Your task to perform on an android device: Show me recent news Image 0: 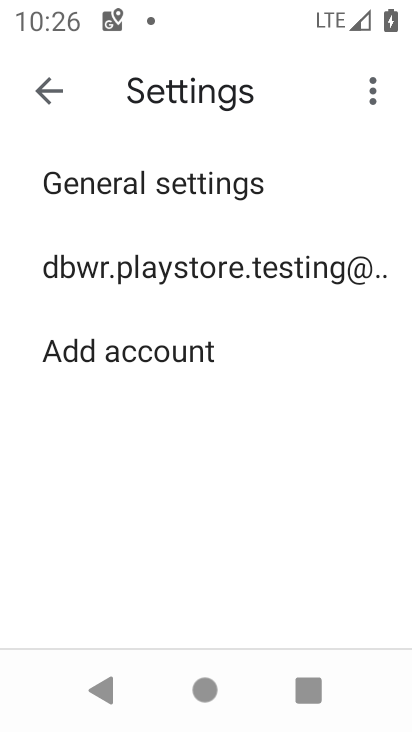
Step 0: press home button
Your task to perform on an android device: Show me recent news Image 1: 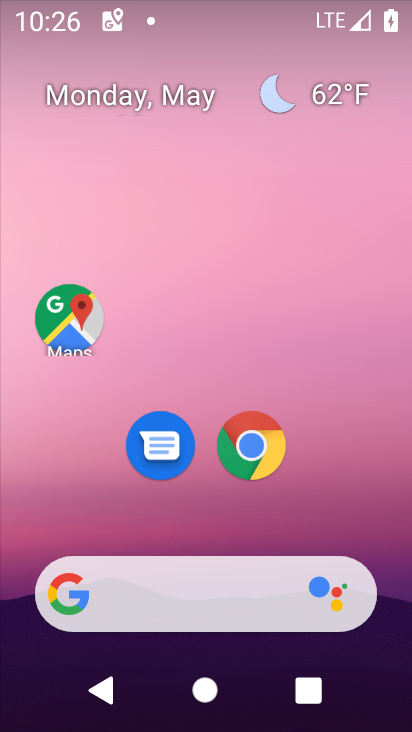
Step 1: drag from (385, 642) to (246, 32)
Your task to perform on an android device: Show me recent news Image 2: 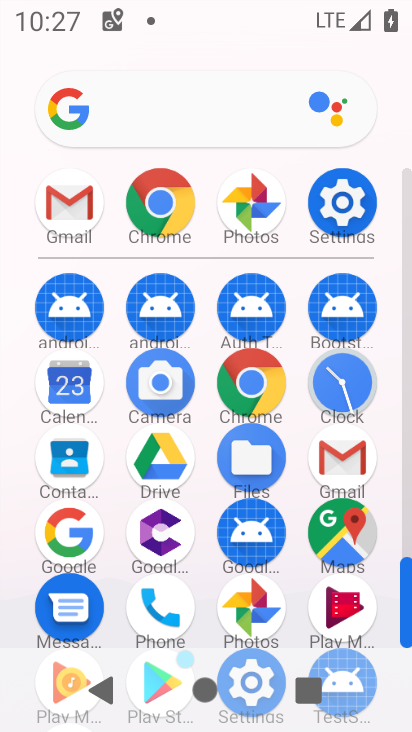
Step 2: click (94, 531)
Your task to perform on an android device: Show me recent news Image 3: 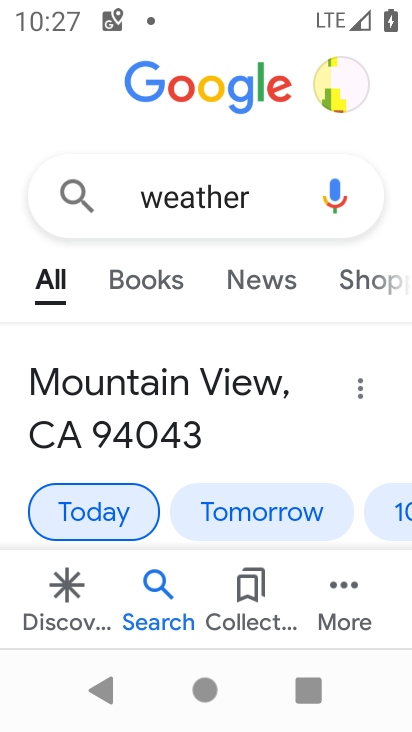
Step 3: press back button
Your task to perform on an android device: Show me recent news Image 4: 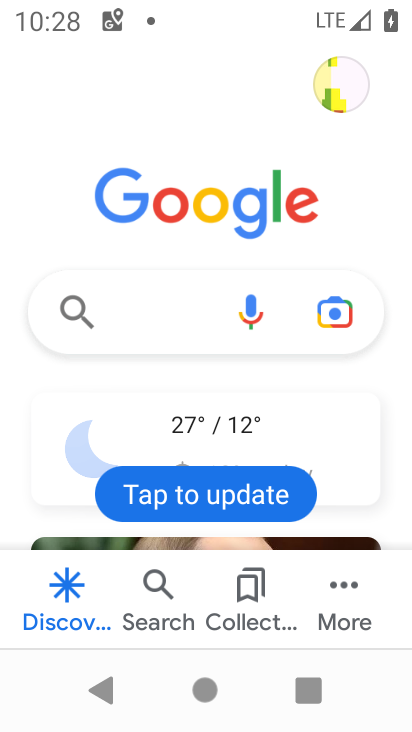
Step 4: click (178, 304)
Your task to perform on an android device: Show me recent news Image 5: 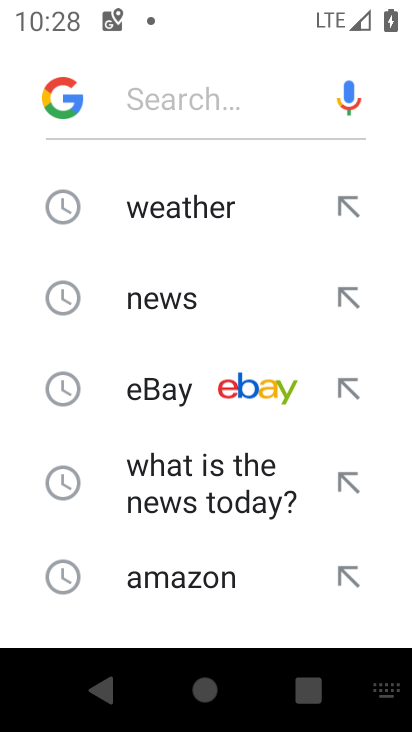
Step 5: drag from (171, 537) to (190, 87)
Your task to perform on an android device: Show me recent news Image 6: 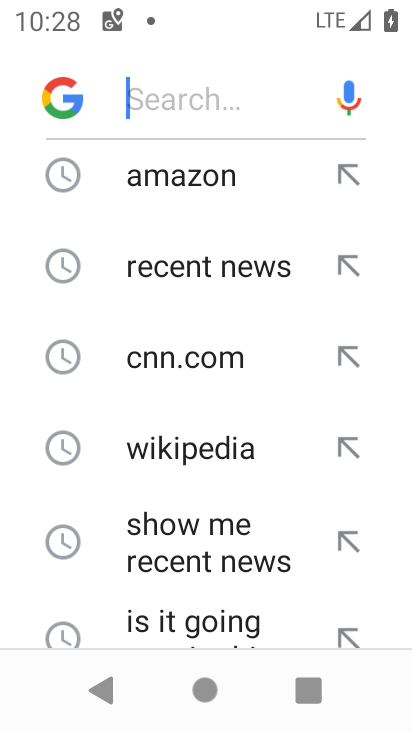
Step 6: click (146, 285)
Your task to perform on an android device: Show me recent news Image 7: 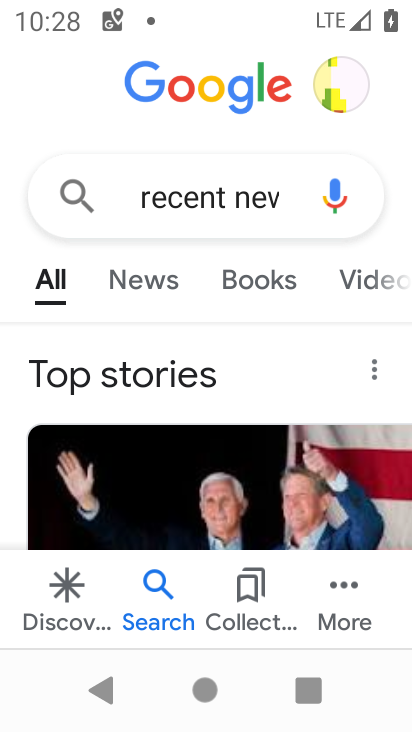
Step 7: task complete